Your task to perform on an android device: Go to location settings Image 0: 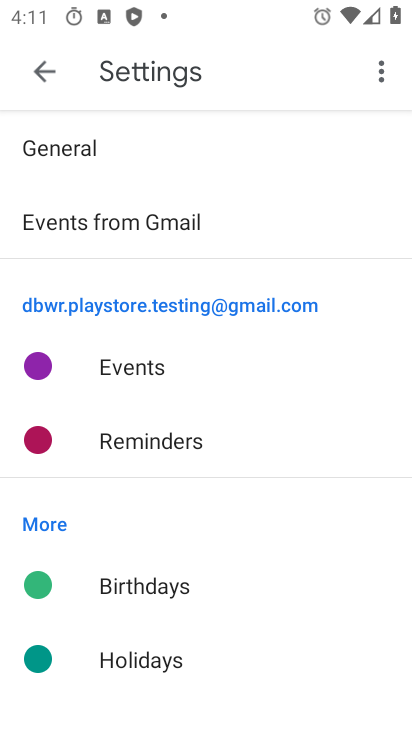
Step 0: press home button
Your task to perform on an android device: Go to location settings Image 1: 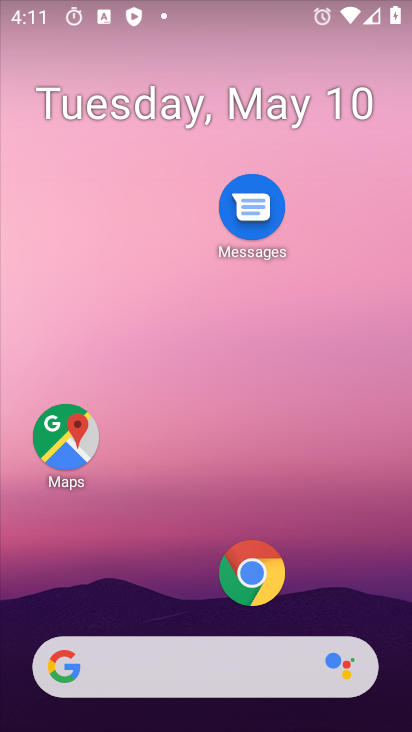
Step 1: drag from (183, 589) to (167, 169)
Your task to perform on an android device: Go to location settings Image 2: 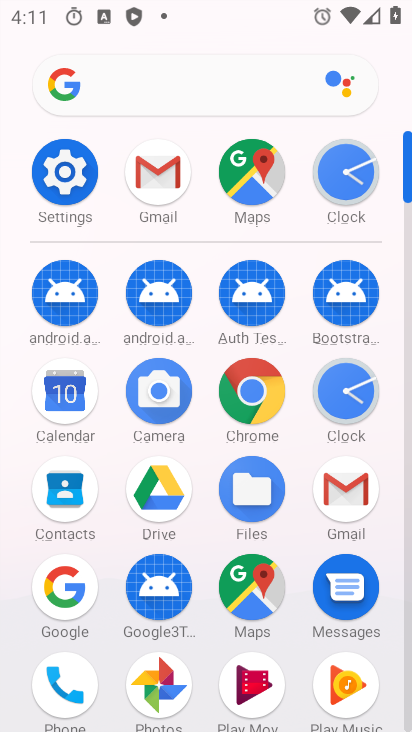
Step 2: click (85, 173)
Your task to perform on an android device: Go to location settings Image 3: 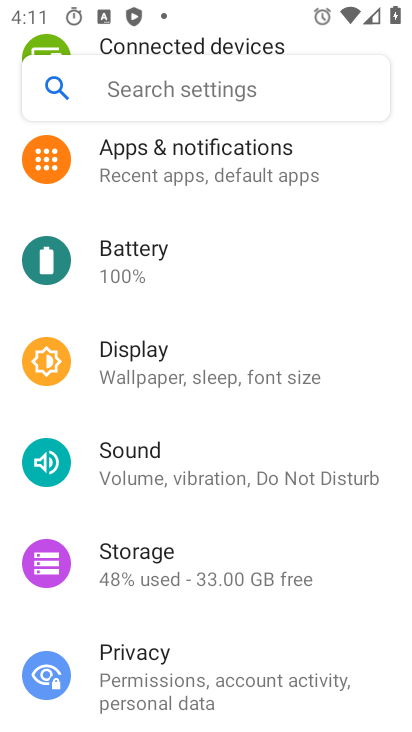
Step 3: drag from (199, 584) to (231, 297)
Your task to perform on an android device: Go to location settings Image 4: 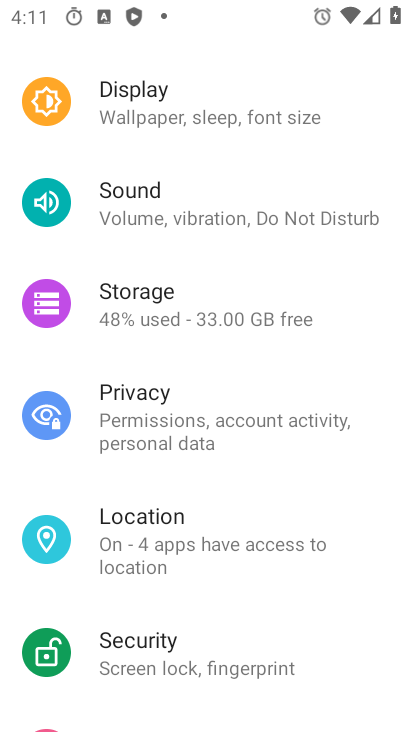
Step 4: click (173, 530)
Your task to perform on an android device: Go to location settings Image 5: 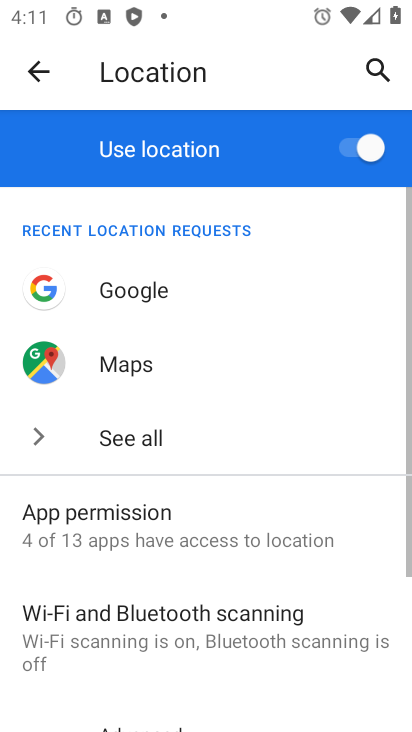
Step 5: task complete